Your task to perform on an android device: set an alarm Image 0: 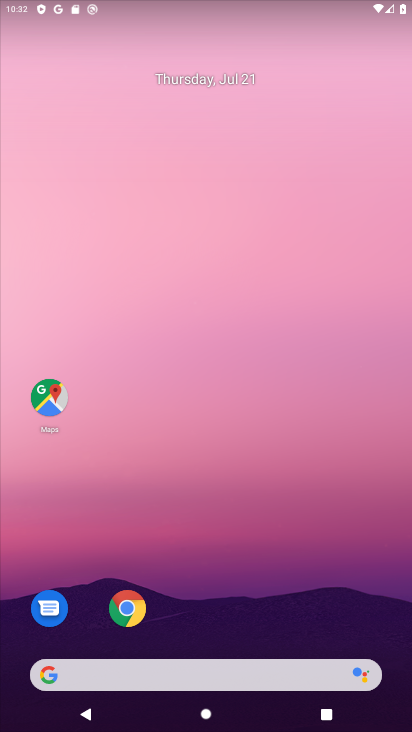
Step 0: drag from (353, 592) to (198, 71)
Your task to perform on an android device: set an alarm Image 1: 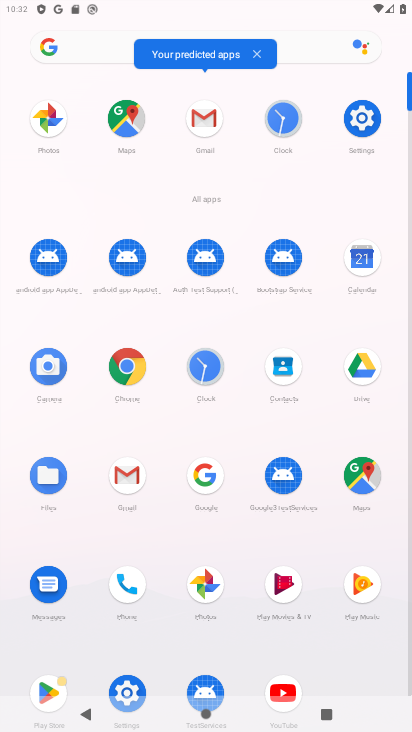
Step 1: click (201, 373)
Your task to perform on an android device: set an alarm Image 2: 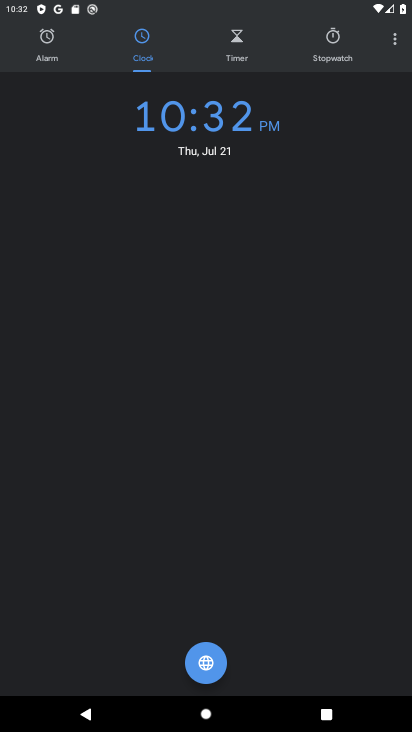
Step 2: click (48, 49)
Your task to perform on an android device: set an alarm Image 3: 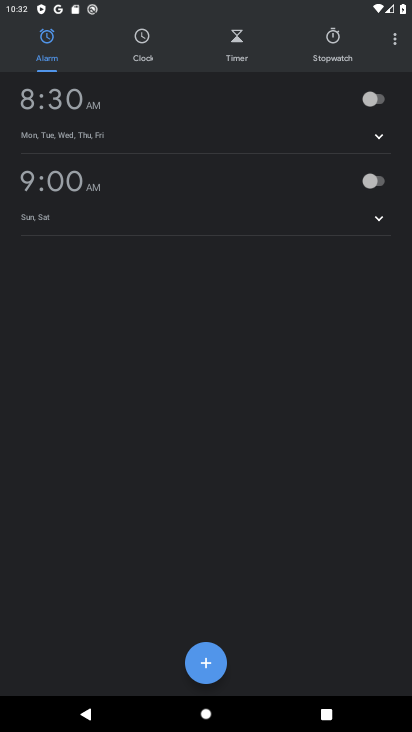
Step 3: click (396, 104)
Your task to perform on an android device: set an alarm Image 4: 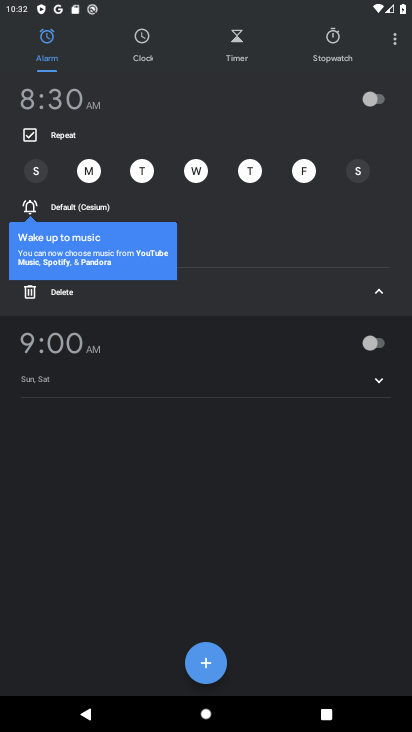
Step 4: click (374, 96)
Your task to perform on an android device: set an alarm Image 5: 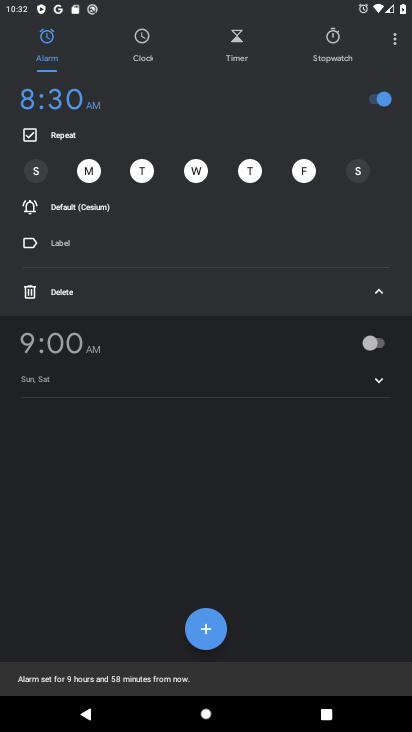
Step 5: task complete